Your task to perform on an android device: change the clock display to analog Image 0: 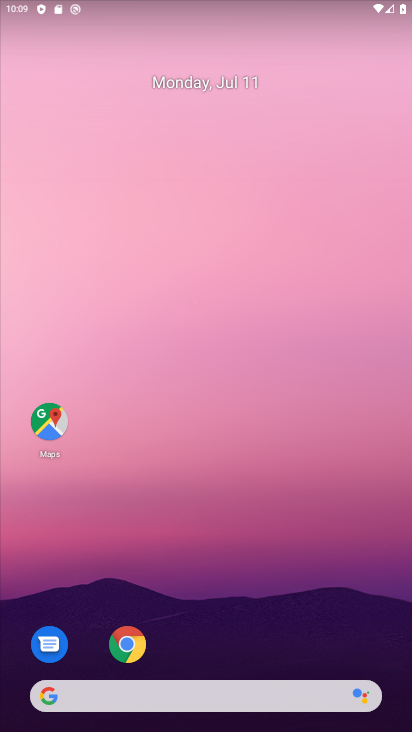
Step 0: press home button
Your task to perform on an android device: change the clock display to analog Image 1: 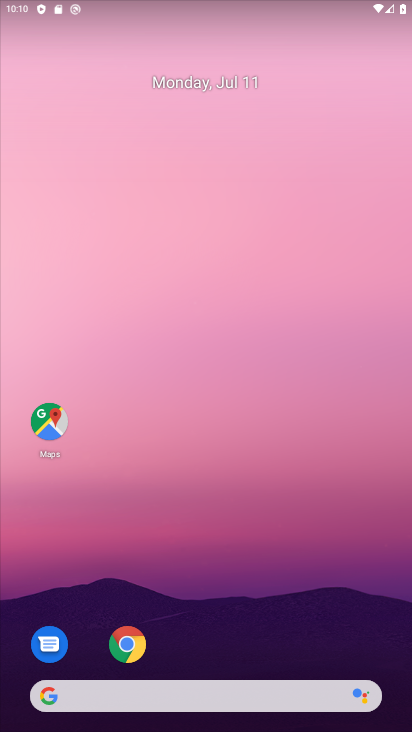
Step 1: drag from (210, 594) to (224, 59)
Your task to perform on an android device: change the clock display to analog Image 2: 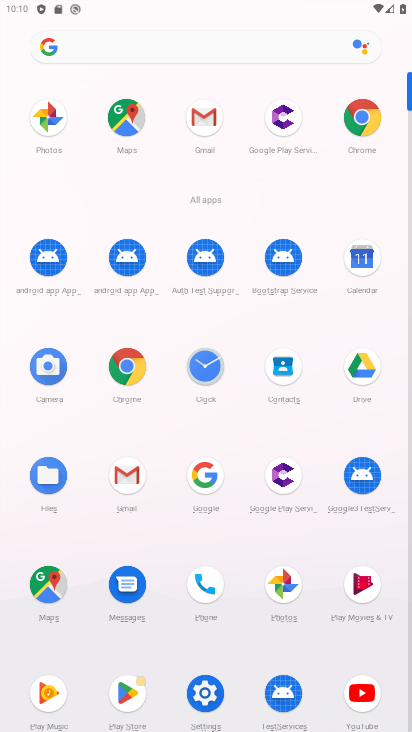
Step 2: click (195, 375)
Your task to perform on an android device: change the clock display to analog Image 3: 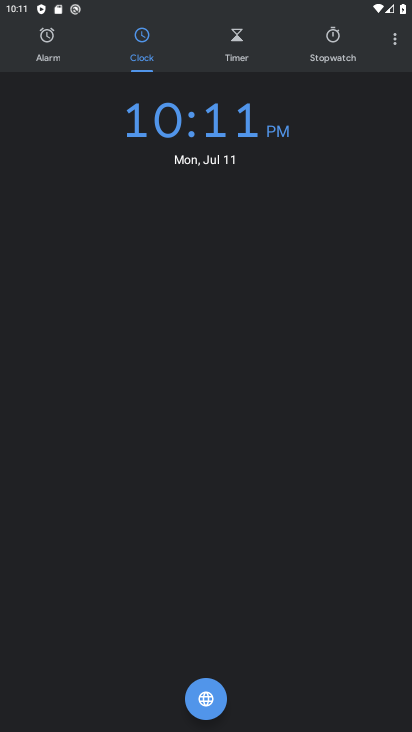
Step 3: drag from (395, 30) to (293, 87)
Your task to perform on an android device: change the clock display to analog Image 4: 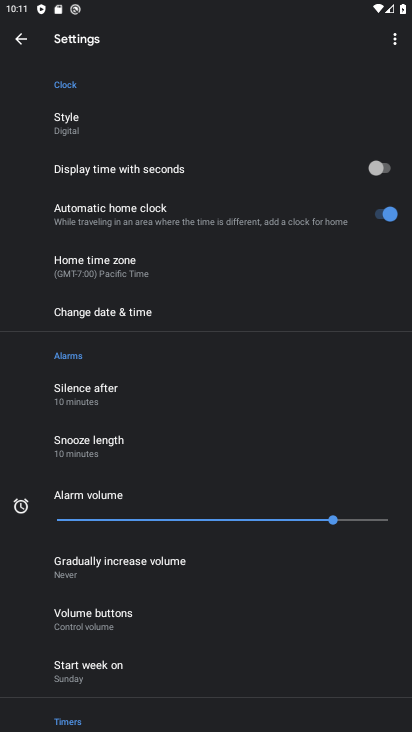
Step 4: click (82, 134)
Your task to perform on an android device: change the clock display to analog Image 5: 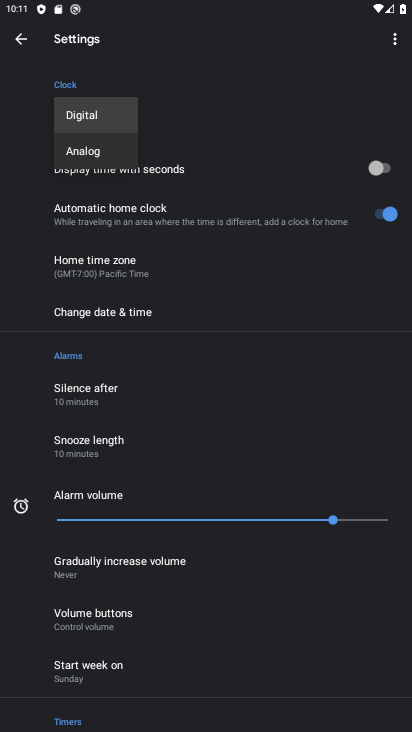
Step 5: click (78, 157)
Your task to perform on an android device: change the clock display to analog Image 6: 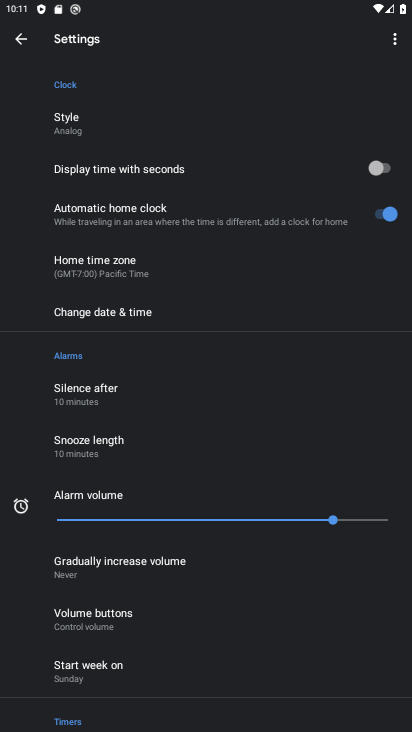
Step 6: task complete